Your task to perform on an android device: change the clock display to digital Image 0: 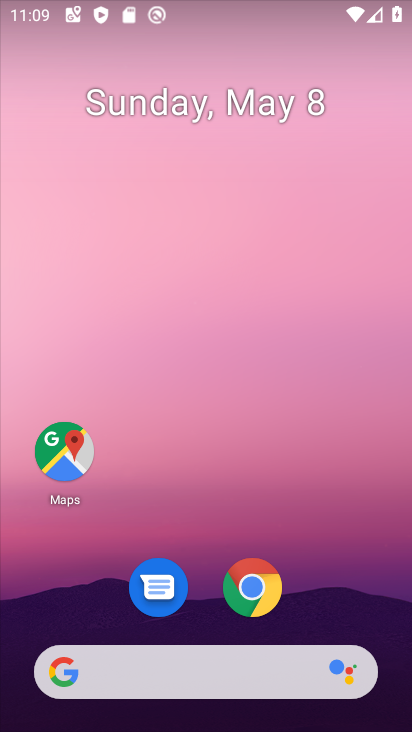
Step 0: drag from (355, 646) to (328, 218)
Your task to perform on an android device: change the clock display to digital Image 1: 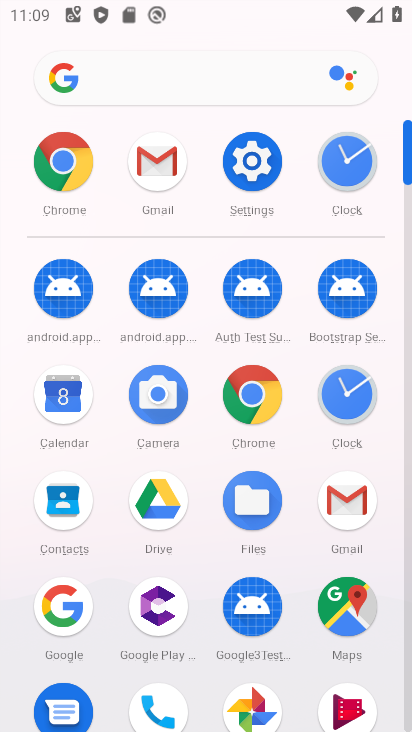
Step 1: click (353, 390)
Your task to perform on an android device: change the clock display to digital Image 2: 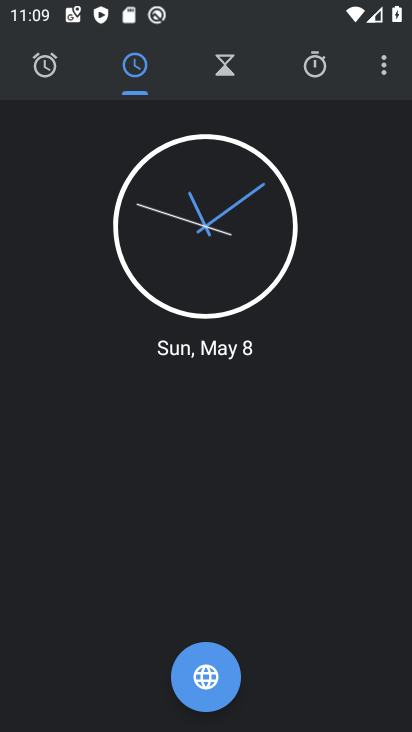
Step 2: click (381, 66)
Your task to perform on an android device: change the clock display to digital Image 3: 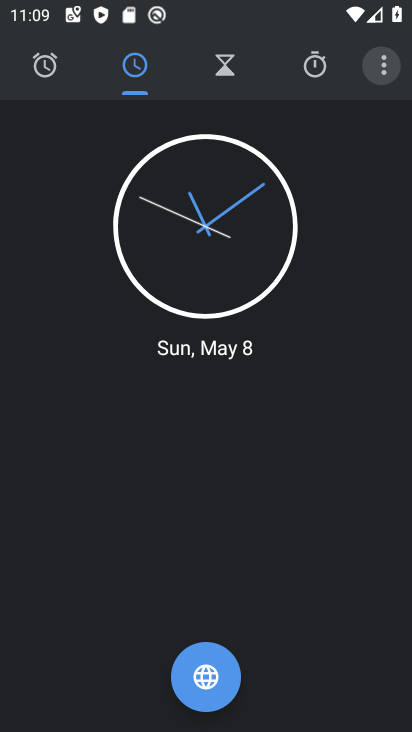
Step 3: click (386, 54)
Your task to perform on an android device: change the clock display to digital Image 4: 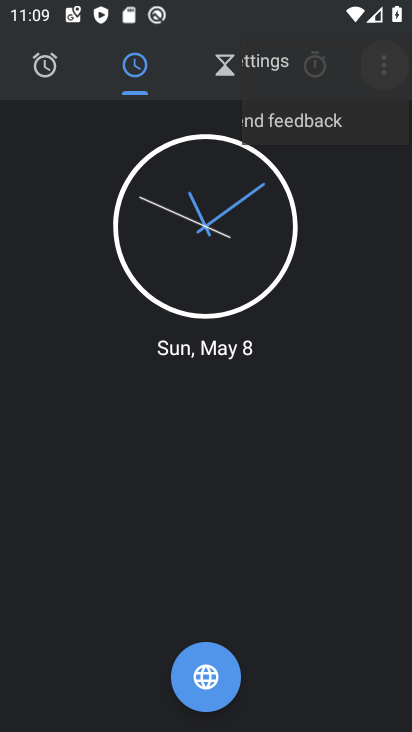
Step 4: click (385, 57)
Your task to perform on an android device: change the clock display to digital Image 5: 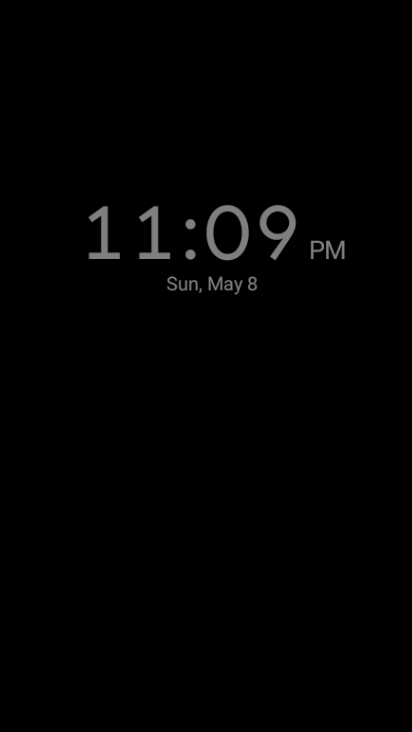
Step 5: click (133, 383)
Your task to perform on an android device: change the clock display to digital Image 6: 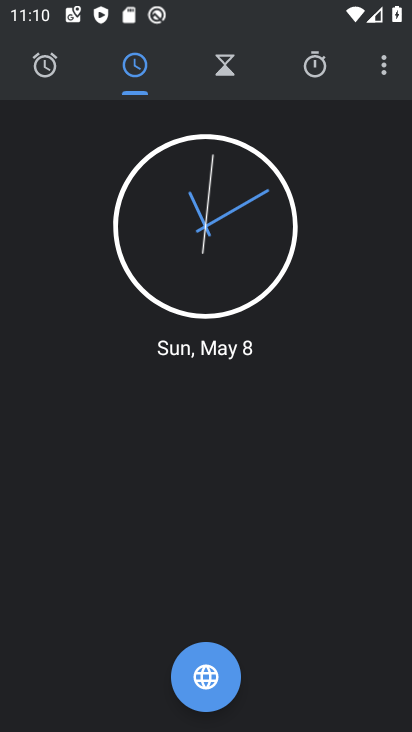
Step 6: click (383, 65)
Your task to perform on an android device: change the clock display to digital Image 7: 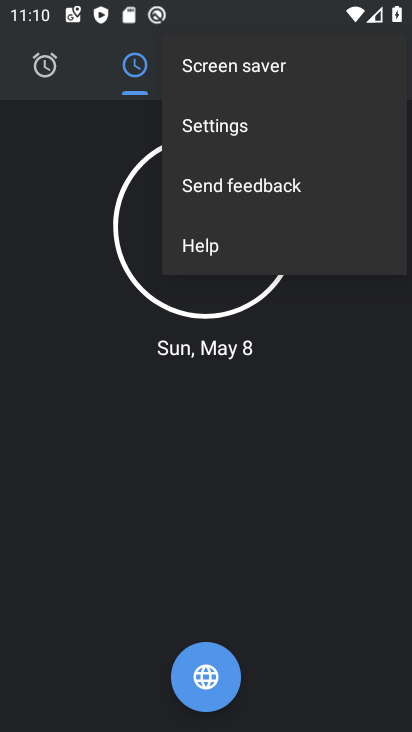
Step 7: click (208, 130)
Your task to perform on an android device: change the clock display to digital Image 8: 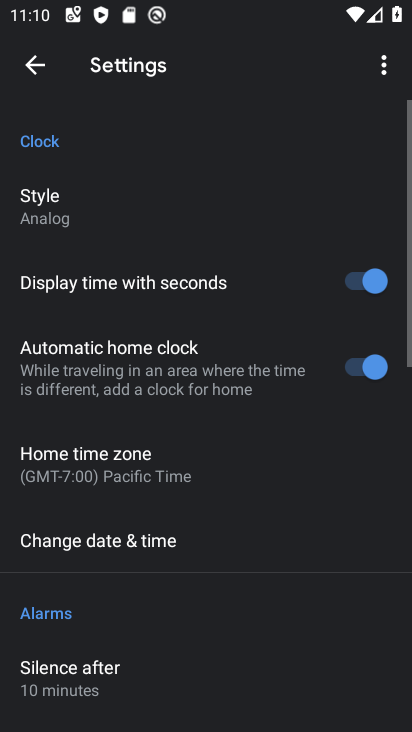
Step 8: click (113, 204)
Your task to perform on an android device: change the clock display to digital Image 9: 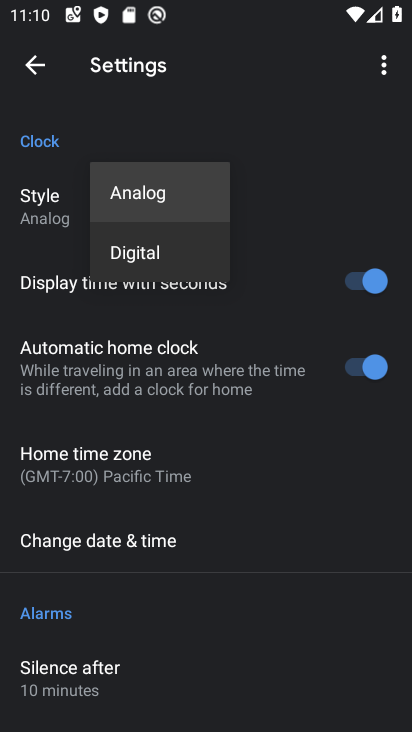
Step 9: click (130, 260)
Your task to perform on an android device: change the clock display to digital Image 10: 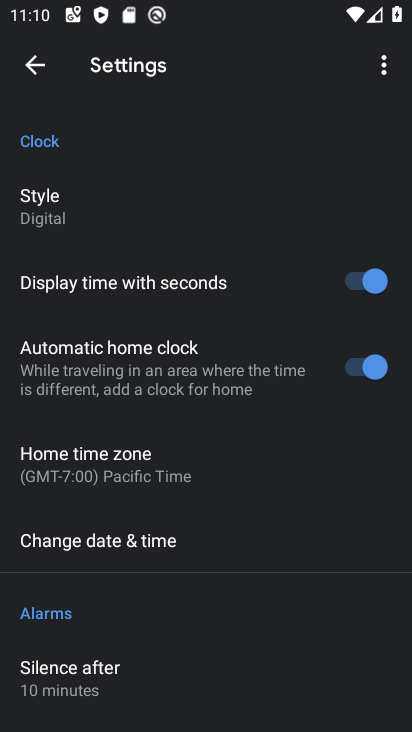
Step 10: task complete